Your task to perform on an android device: Go to wifi settings Image 0: 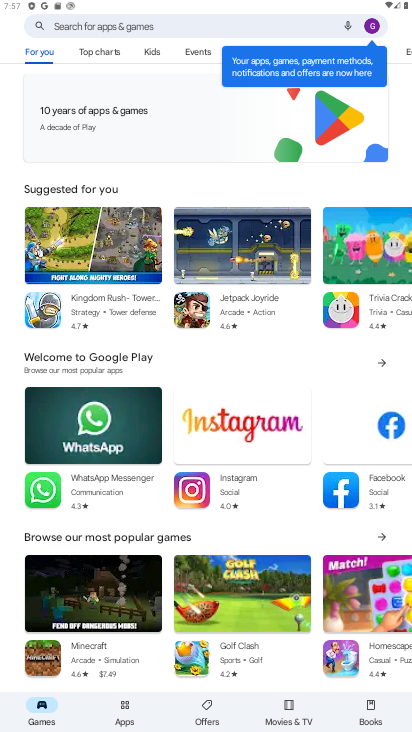
Step 0: press home button
Your task to perform on an android device: Go to wifi settings Image 1: 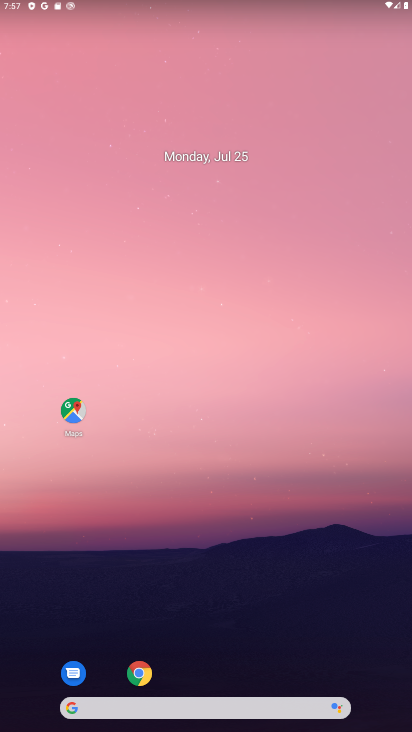
Step 1: drag from (247, 683) to (292, 22)
Your task to perform on an android device: Go to wifi settings Image 2: 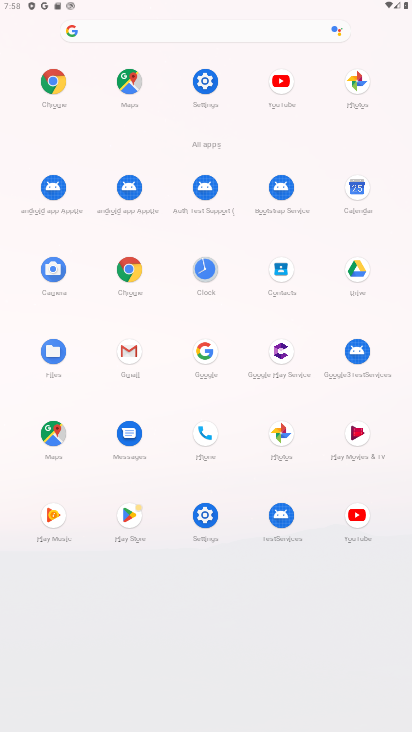
Step 2: click (212, 106)
Your task to perform on an android device: Go to wifi settings Image 3: 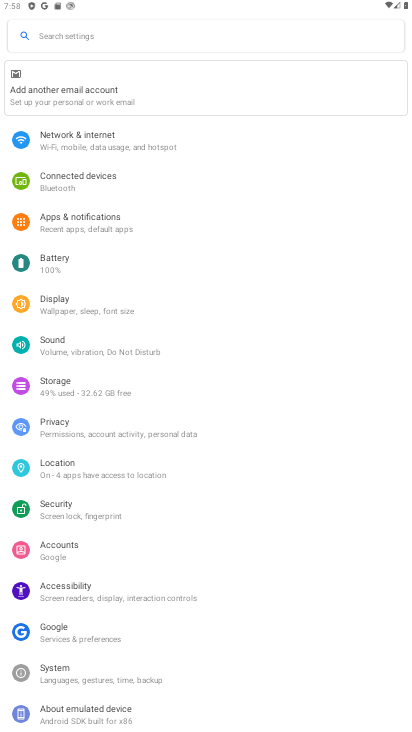
Step 3: click (119, 142)
Your task to perform on an android device: Go to wifi settings Image 4: 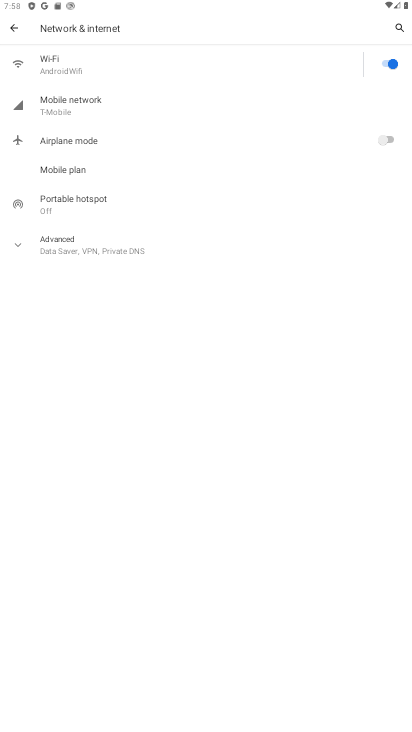
Step 4: task complete